Your task to perform on an android device: Open internet settings Image 0: 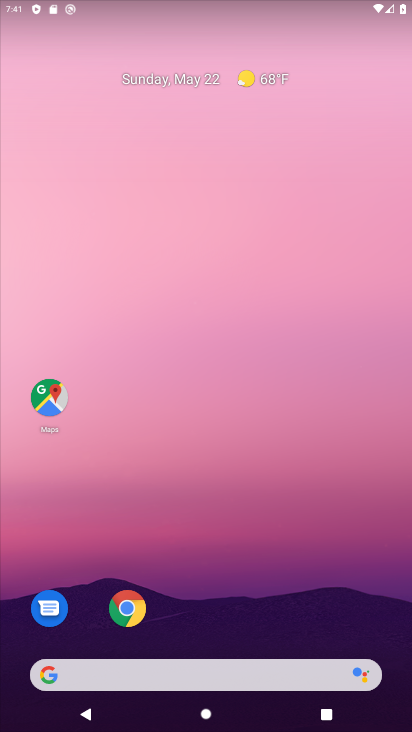
Step 0: drag from (136, 723) to (142, 103)
Your task to perform on an android device: Open internet settings Image 1: 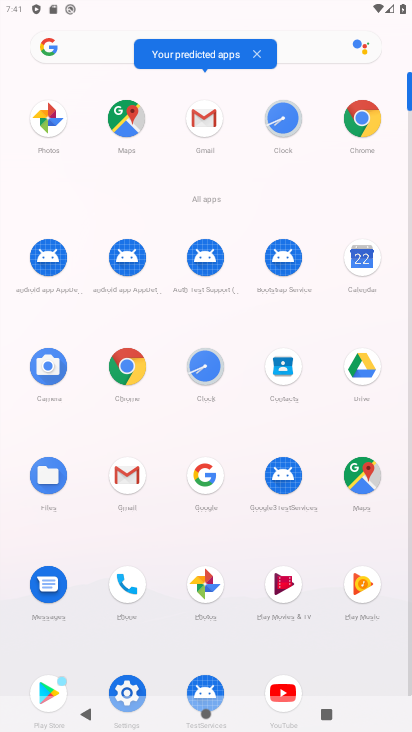
Step 1: click (130, 685)
Your task to perform on an android device: Open internet settings Image 2: 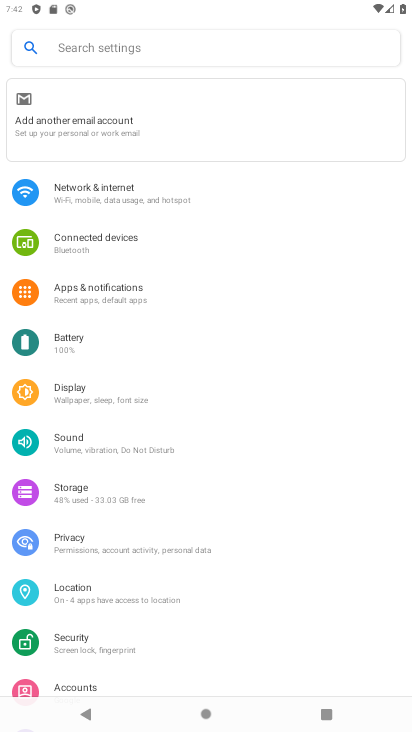
Step 2: click (102, 196)
Your task to perform on an android device: Open internet settings Image 3: 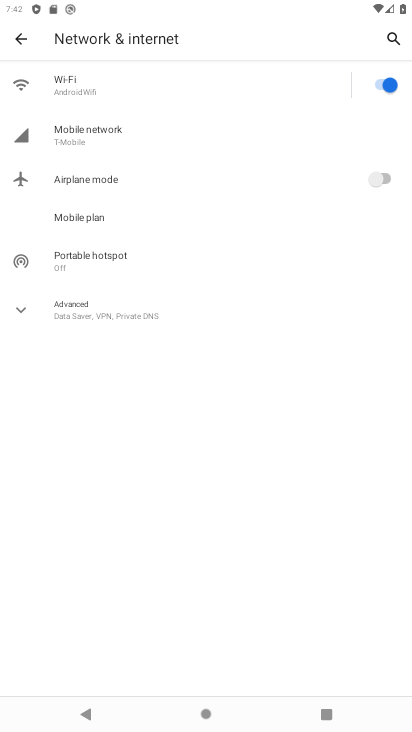
Step 3: task complete